Your task to perform on an android device: toggle notifications settings in the gmail app Image 0: 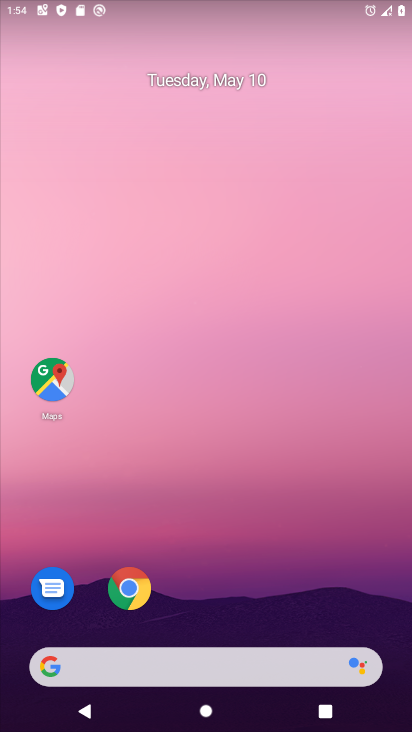
Step 0: drag from (252, 558) to (232, 213)
Your task to perform on an android device: toggle notifications settings in the gmail app Image 1: 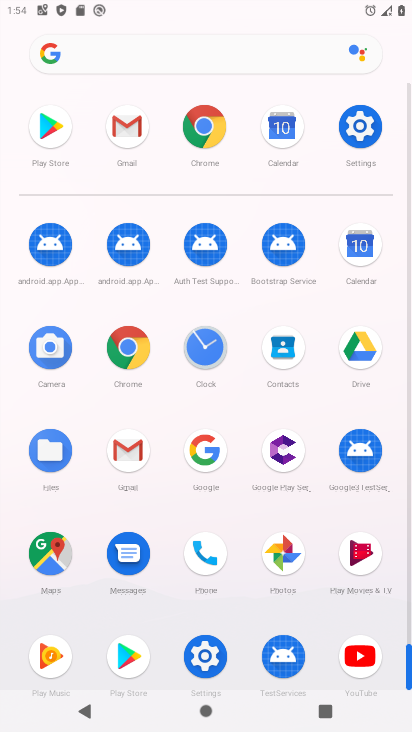
Step 1: click (129, 114)
Your task to perform on an android device: toggle notifications settings in the gmail app Image 2: 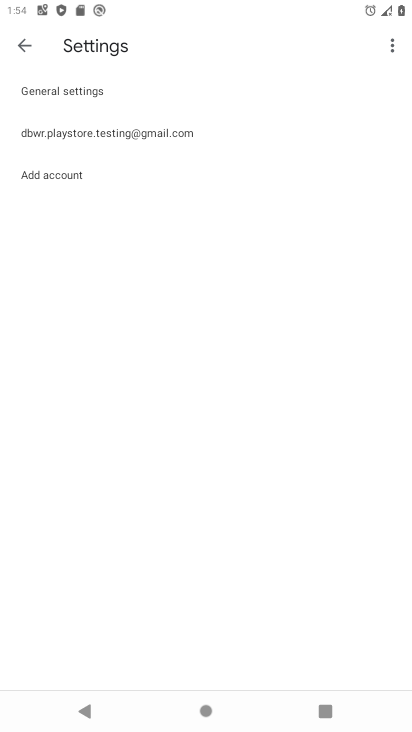
Step 2: click (146, 130)
Your task to perform on an android device: toggle notifications settings in the gmail app Image 3: 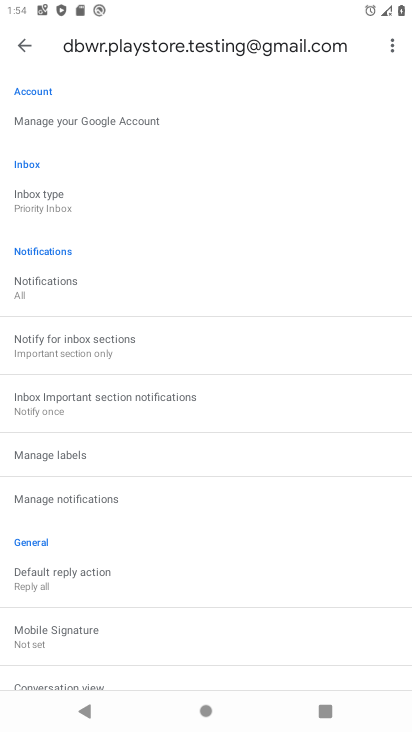
Step 3: click (49, 278)
Your task to perform on an android device: toggle notifications settings in the gmail app Image 4: 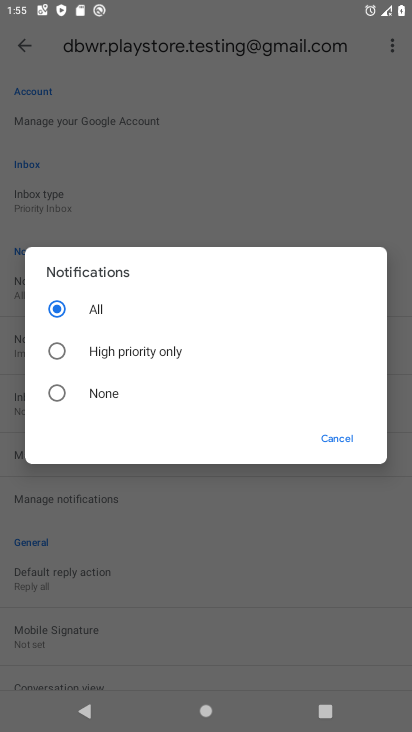
Step 4: click (111, 390)
Your task to perform on an android device: toggle notifications settings in the gmail app Image 5: 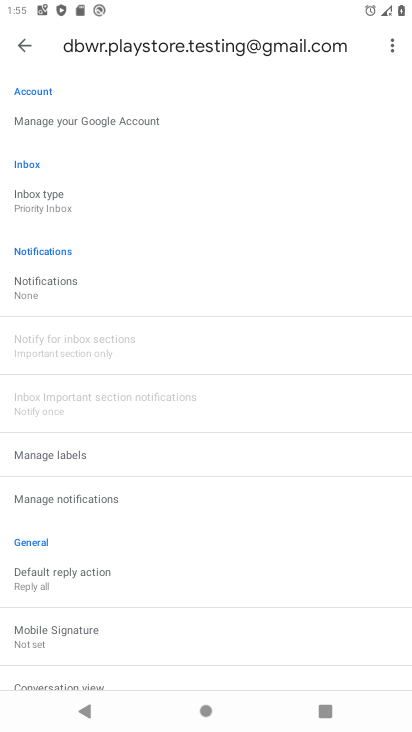
Step 5: task complete